Your task to perform on an android device: Open Amazon Image 0: 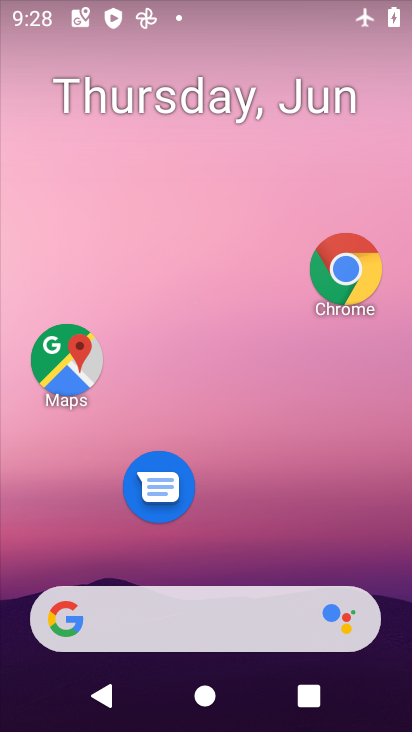
Step 0: drag from (229, 510) to (249, 12)
Your task to perform on an android device: Open Amazon Image 1: 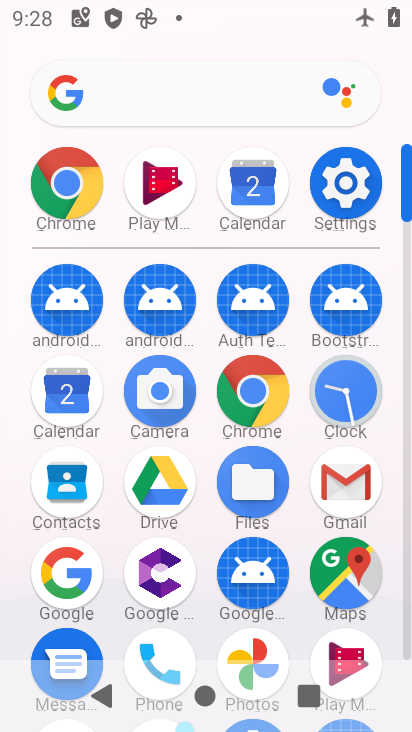
Step 1: click (67, 193)
Your task to perform on an android device: Open Amazon Image 2: 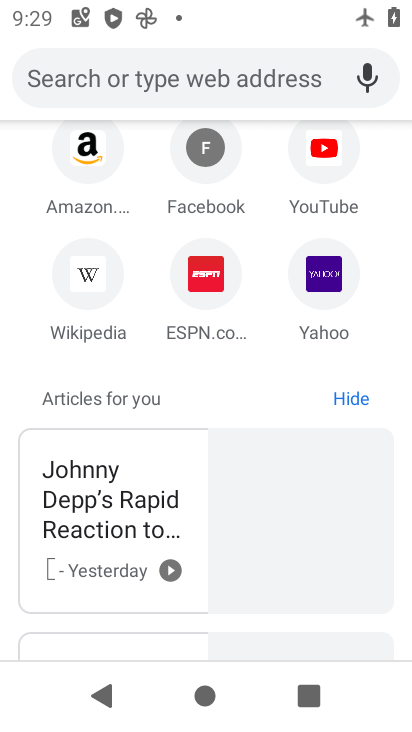
Step 2: click (76, 180)
Your task to perform on an android device: Open Amazon Image 3: 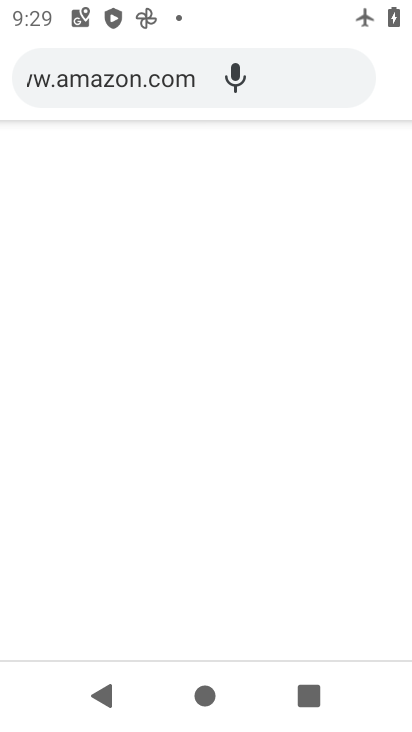
Step 3: task complete